Your task to perform on an android device: Open maps Image 0: 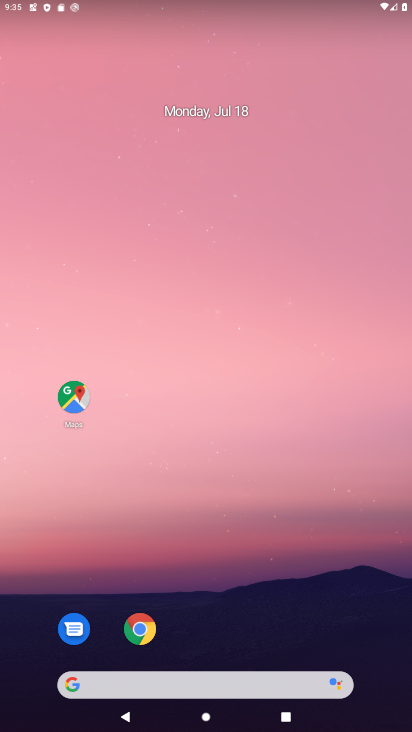
Step 0: drag from (313, 601) to (247, 115)
Your task to perform on an android device: Open maps Image 1: 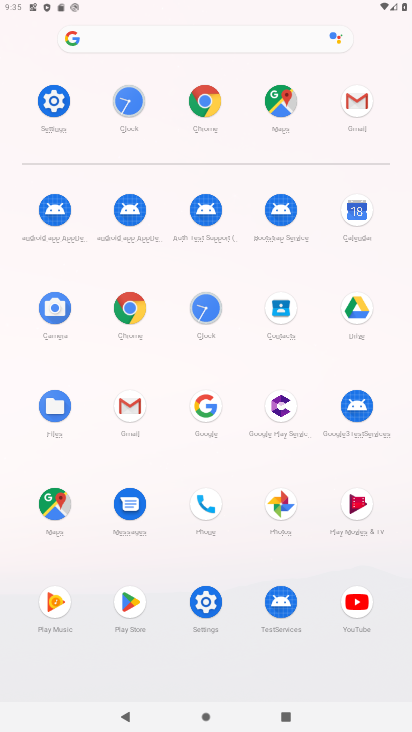
Step 1: click (58, 498)
Your task to perform on an android device: Open maps Image 2: 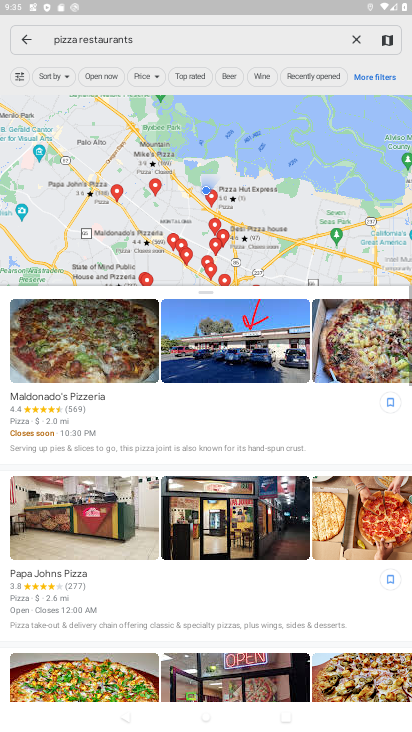
Step 2: task complete